Your task to perform on an android device: change the clock display to show seconds Image 0: 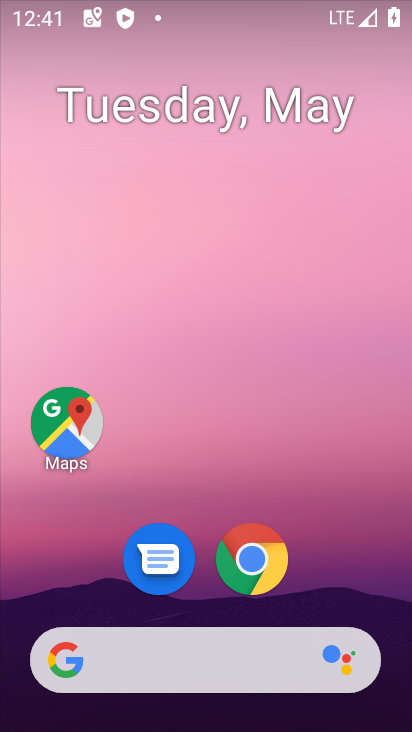
Step 0: drag from (380, 587) to (278, 19)
Your task to perform on an android device: change the clock display to show seconds Image 1: 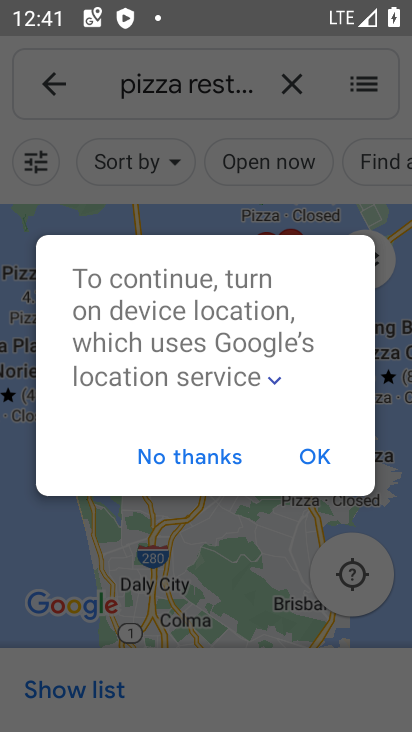
Step 1: press home button
Your task to perform on an android device: change the clock display to show seconds Image 2: 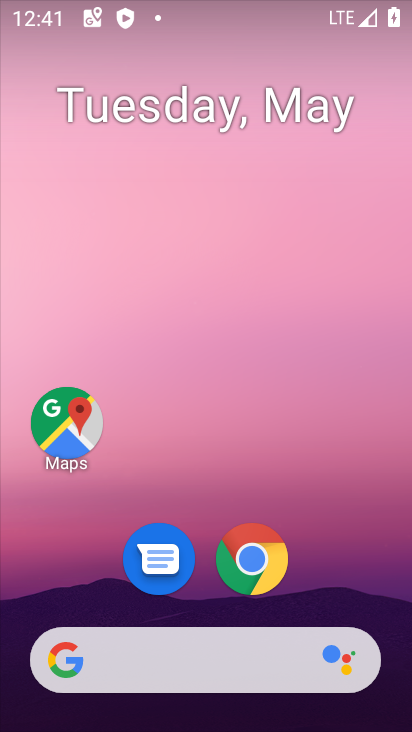
Step 2: drag from (398, 588) to (367, 219)
Your task to perform on an android device: change the clock display to show seconds Image 3: 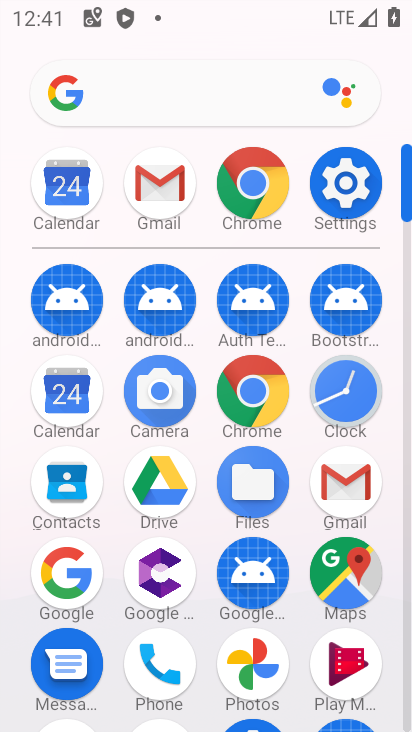
Step 3: click (349, 390)
Your task to perform on an android device: change the clock display to show seconds Image 4: 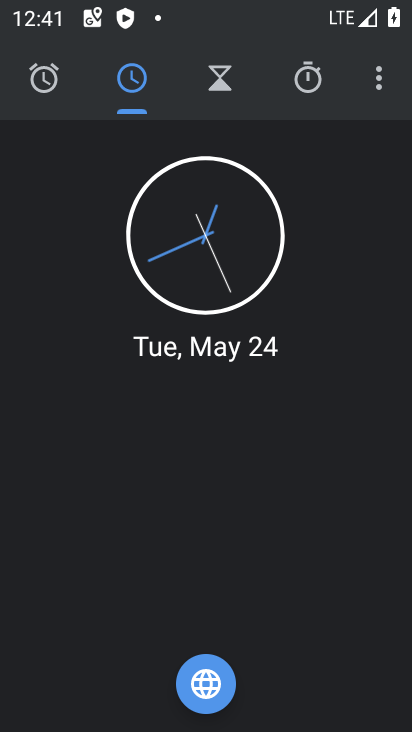
Step 4: click (370, 102)
Your task to perform on an android device: change the clock display to show seconds Image 5: 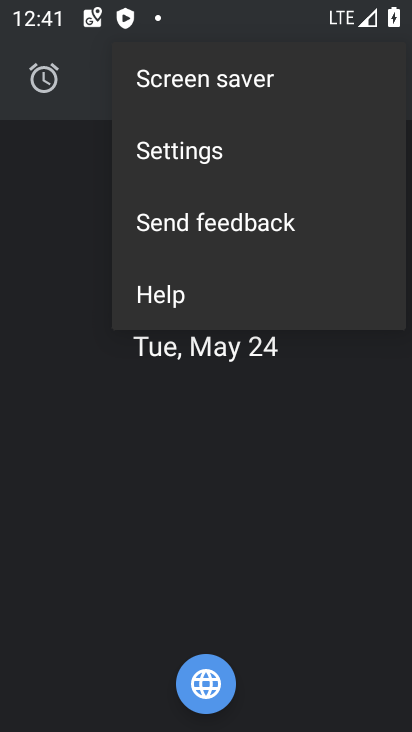
Step 5: click (220, 161)
Your task to perform on an android device: change the clock display to show seconds Image 6: 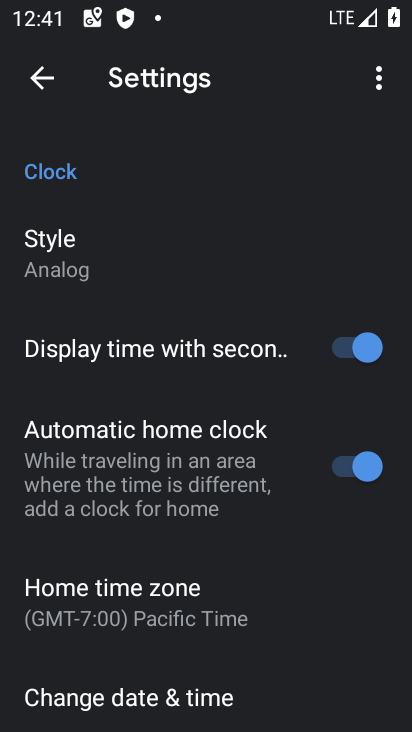
Step 6: click (174, 233)
Your task to perform on an android device: change the clock display to show seconds Image 7: 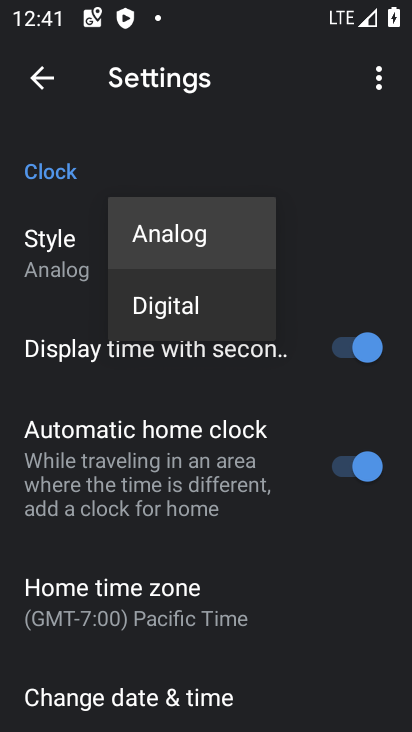
Step 7: task complete